Your task to perform on an android device: Play the last video I watched on Youtube Image 0: 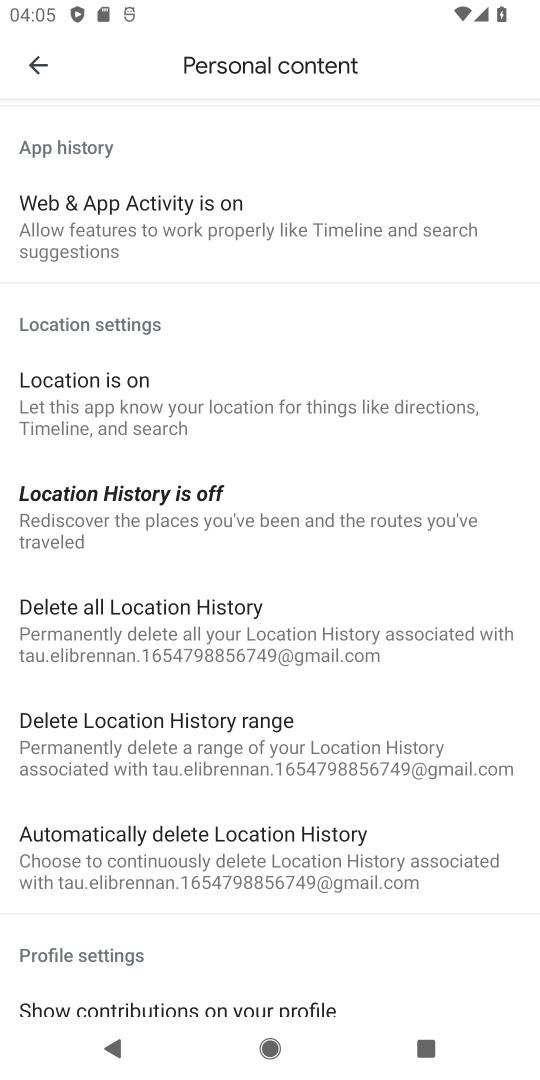
Step 0: press home button
Your task to perform on an android device: Play the last video I watched on Youtube Image 1: 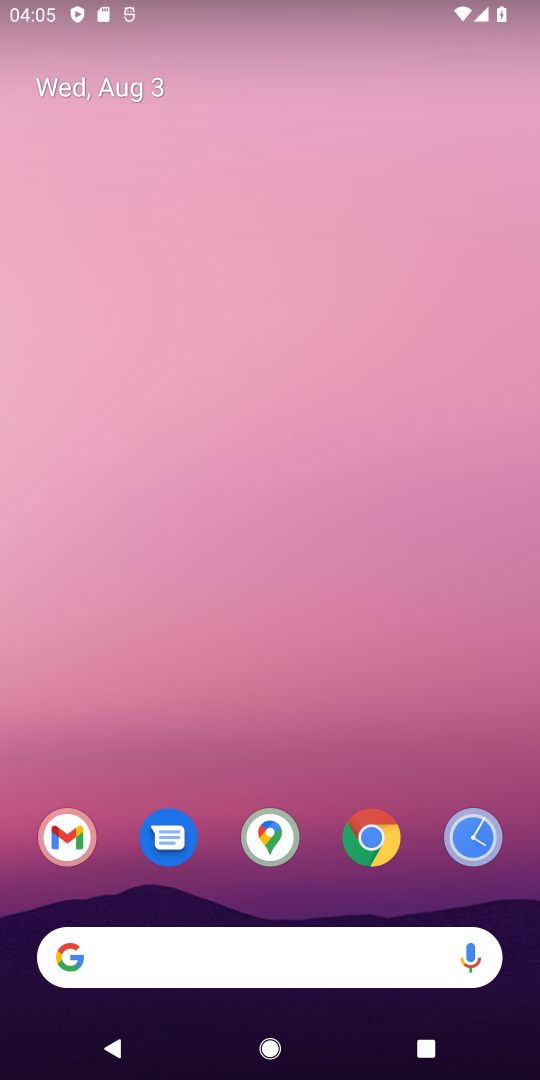
Step 1: drag from (422, 893) to (380, 152)
Your task to perform on an android device: Play the last video I watched on Youtube Image 2: 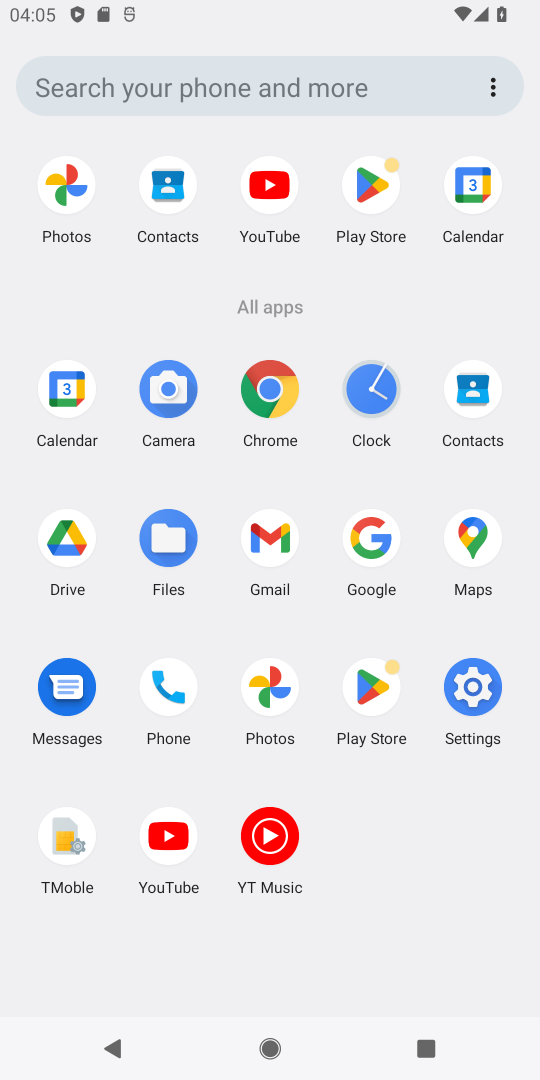
Step 2: click (169, 841)
Your task to perform on an android device: Play the last video I watched on Youtube Image 3: 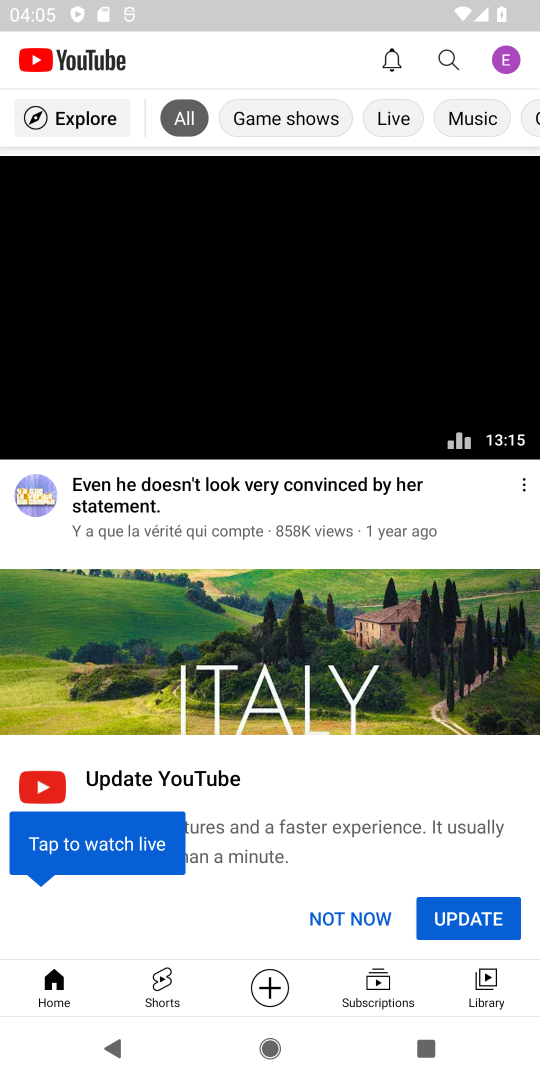
Step 3: click (345, 916)
Your task to perform on an android device: Play the last video I watched on Youtube Image 4: 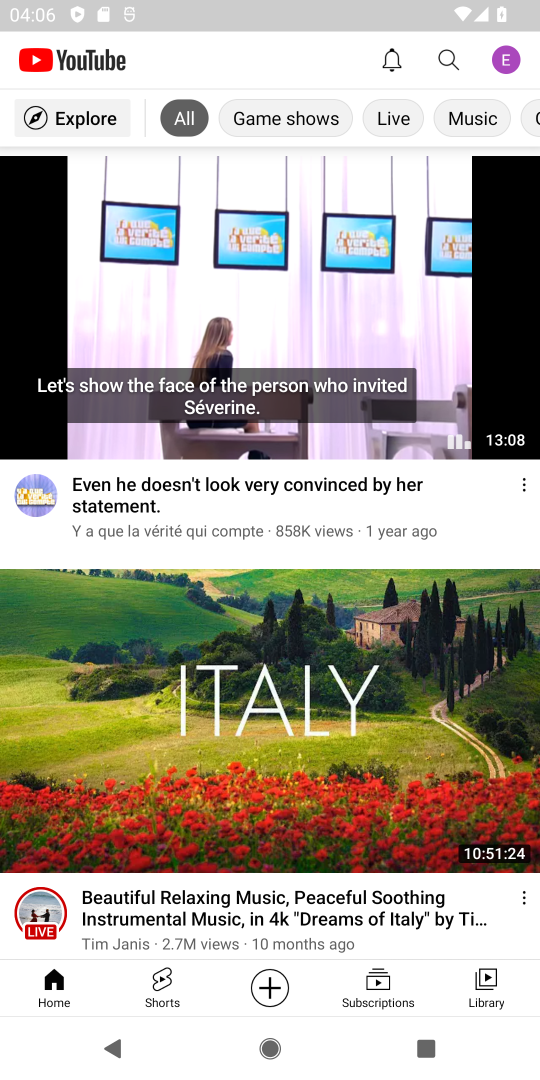
Step 4: click (489, 978)
Your task to perform on an android device: Play the last video I watched on Youtube Image 5: 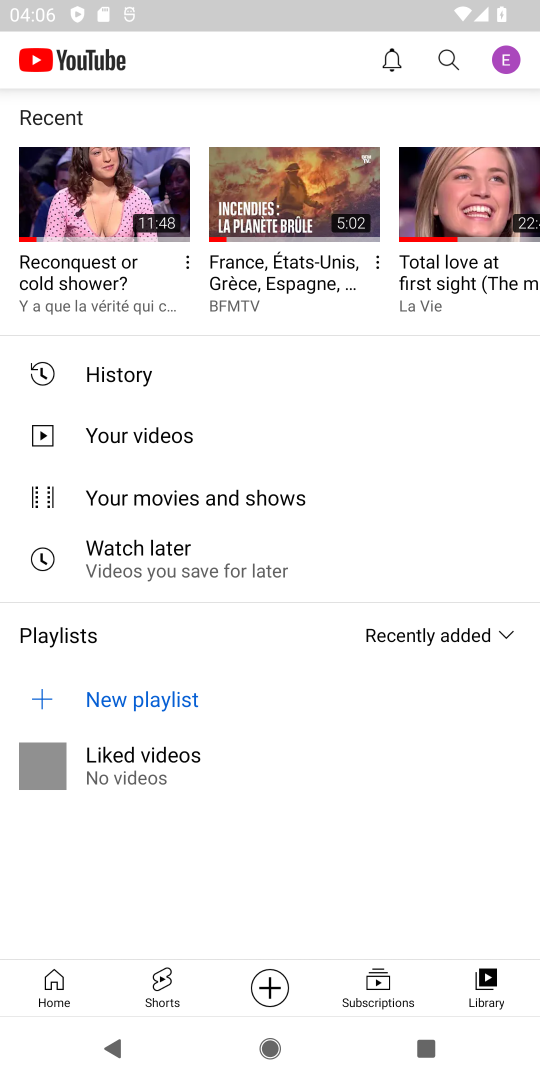
Step 5: click (92, 188)
Your task to perform on an android device: Play the last video I watched on Youtube Image 6: 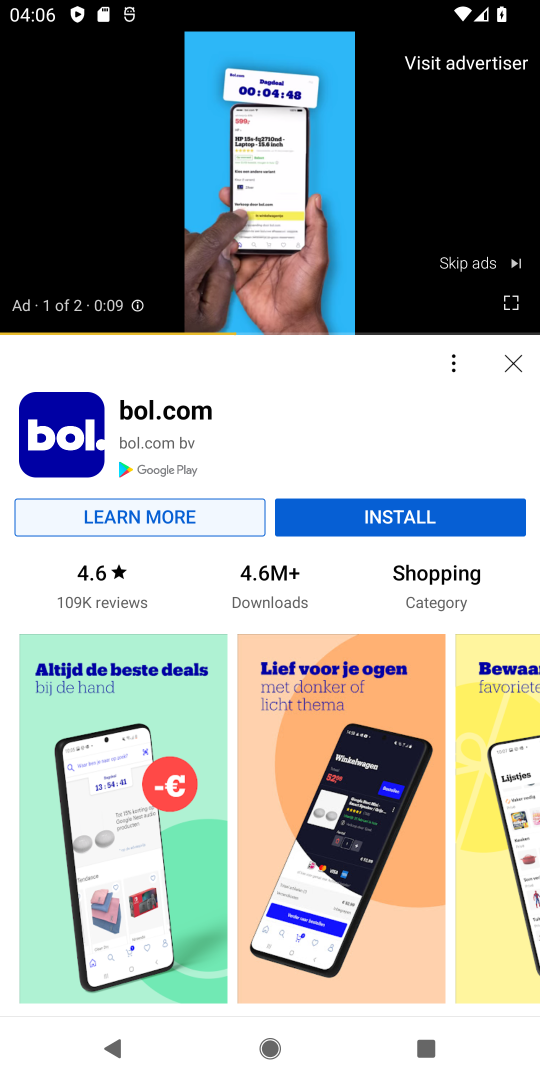
Step 6: click (490, 265)
Your task to perform on an android device: Play the last video I watched on Youtube Image 7: 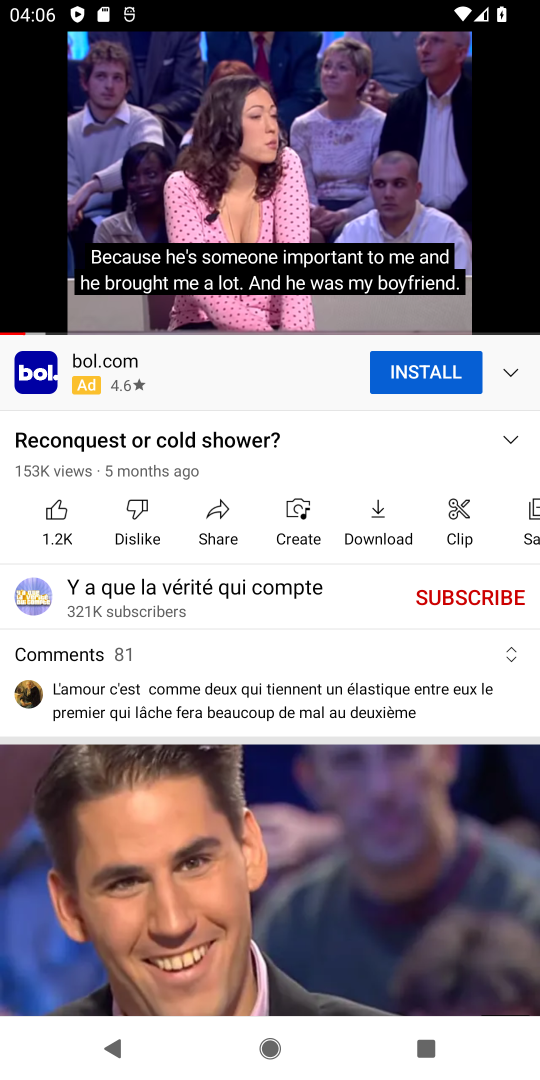
Step 7: click (281, 174)
Your task to perform on an android device: Play the last video I watched on Youtube Image 8: 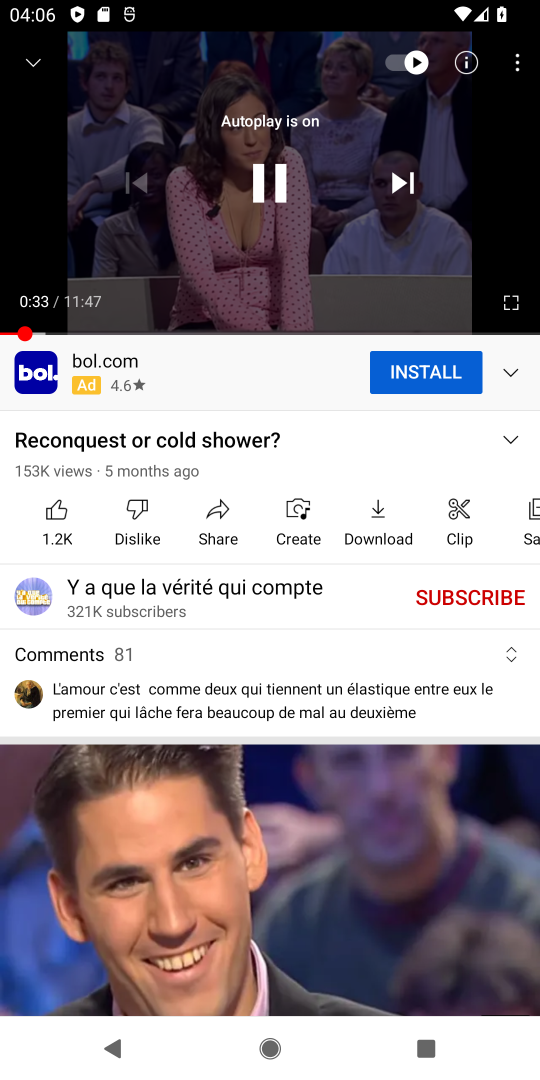
Step 8: click (281, 174)
Your task to perform on an android device: Play the last video I watched on Youtube Image 9: 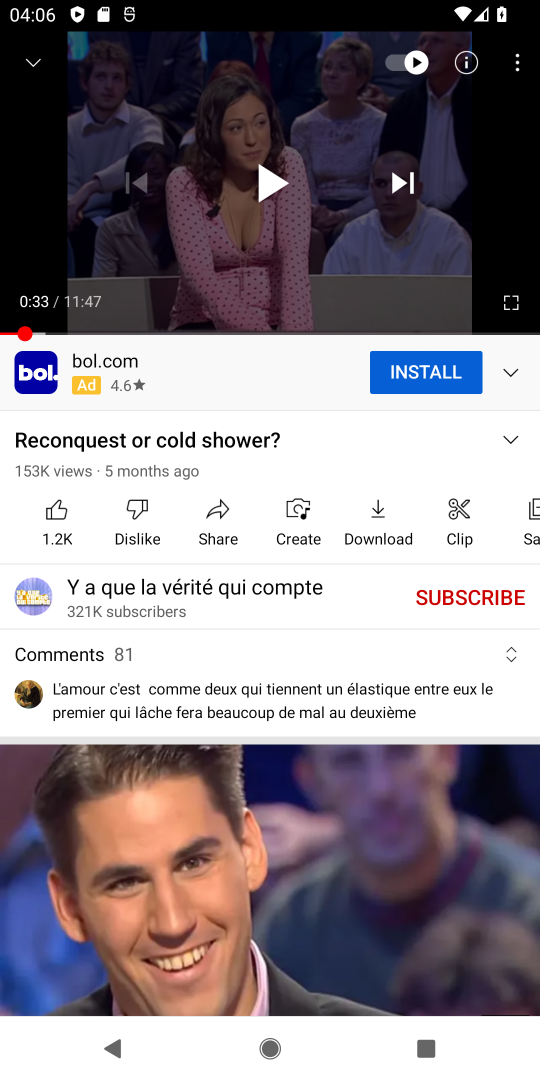
Step 9: task complete